Your task to perform on an android device: toggle data saver in the chrome app Image 0: 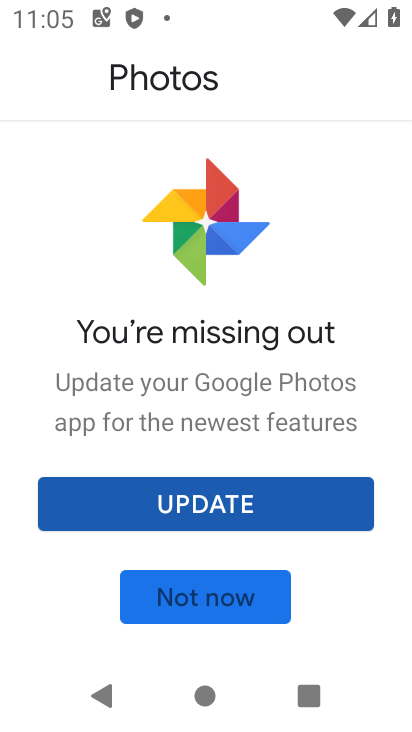
Step 0: press home button
Your task to perform on an android device: toggle data saver in the chrome app Image 1: 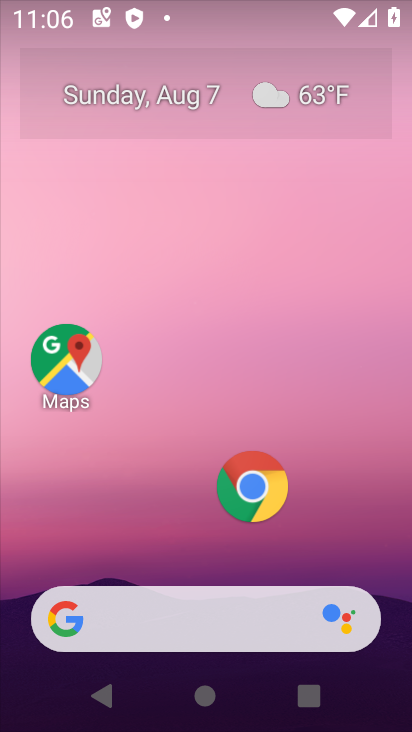
Step 1: click (267, 500)
Your task to perform on an android device: toggle data saver in the chrome app Image 2: 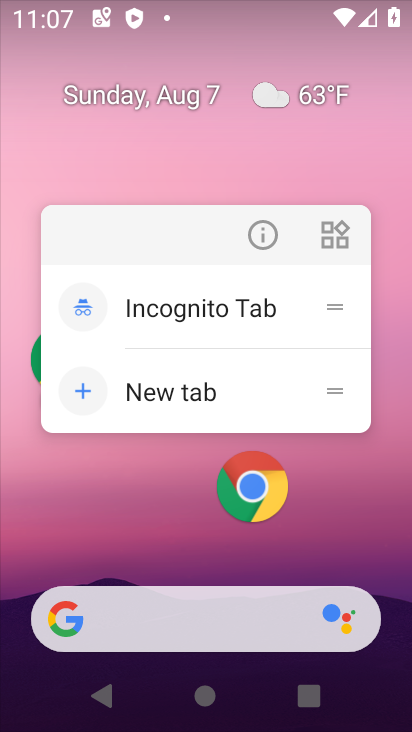
Step 2: click (267, 500)
Your task to perform on an android device: toggle data saver in the chrome app Image 3: 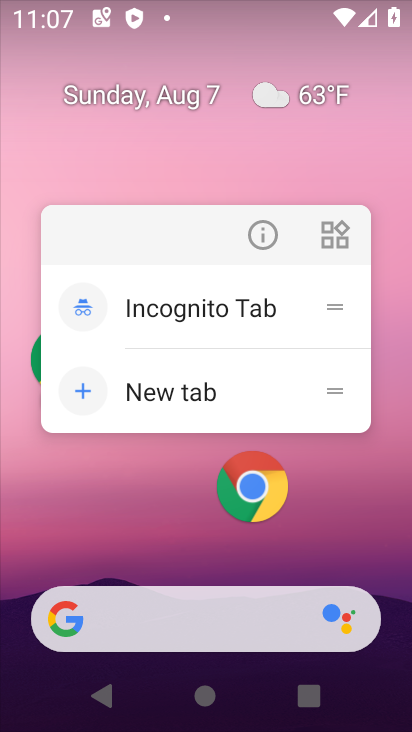
Step 3: click (267, 500)
Your task to perform on an android device: toggle data saver in the chrome app Image 4: 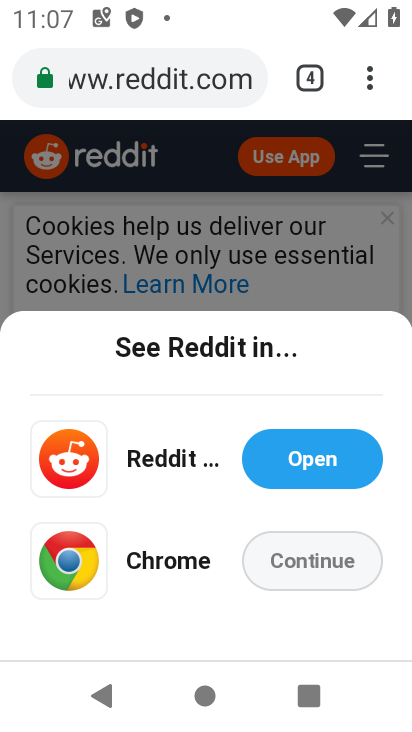
Step 4: click (373, 87)
Your task to perform on an android device: toggle data saver in the chrome app Image 5: 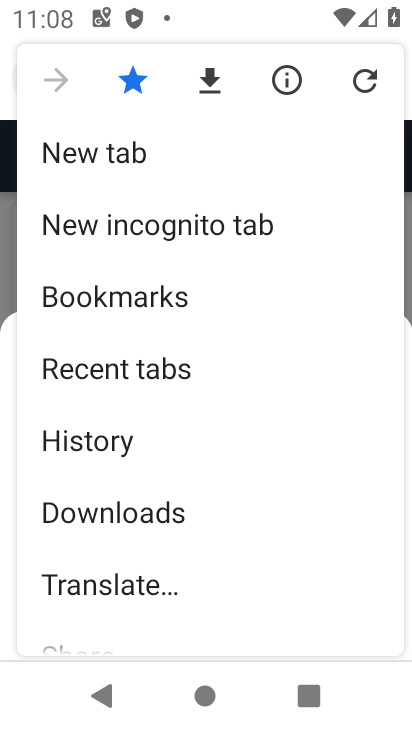
Step 5: drag from (267, 588) to (233, 95)
Your task to perform on an android device: toggle data saver in the chrome app Image 6: 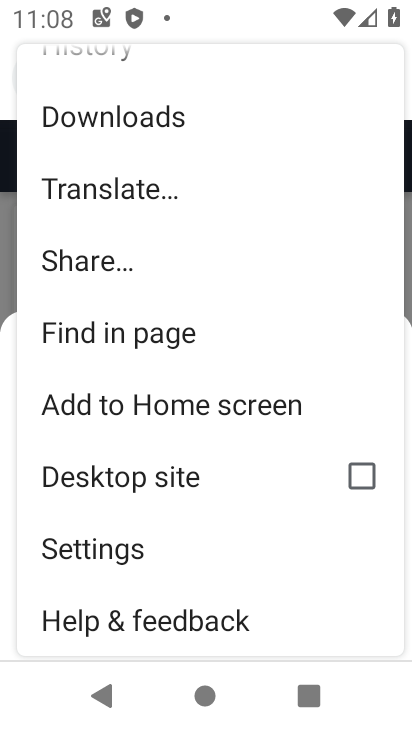
Step 6: drag from (262, 658) to (324, 134)
Your task to perform on an android device: toggle data saver in the chrome app Image 7: 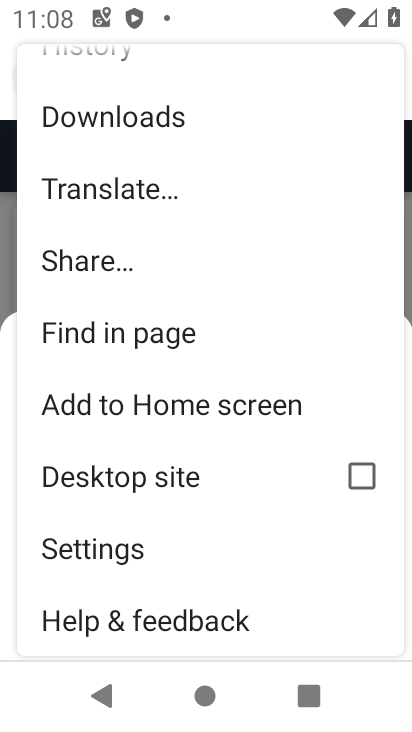
Step 7: drag from (251, 579) to (307, 87)
Your task to perform on an android device: toggle data saver in the chrome app Image 8: 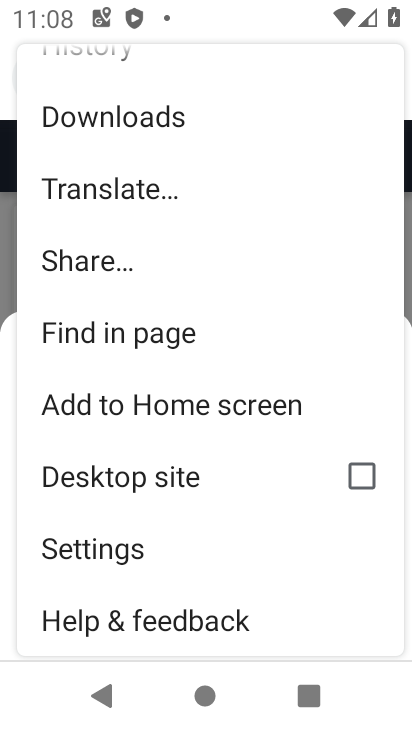
Step 8: drag from (234, 574) to (391, 201)
Your task to perform on an android device: toggle data saver in the chrome app Image 9: 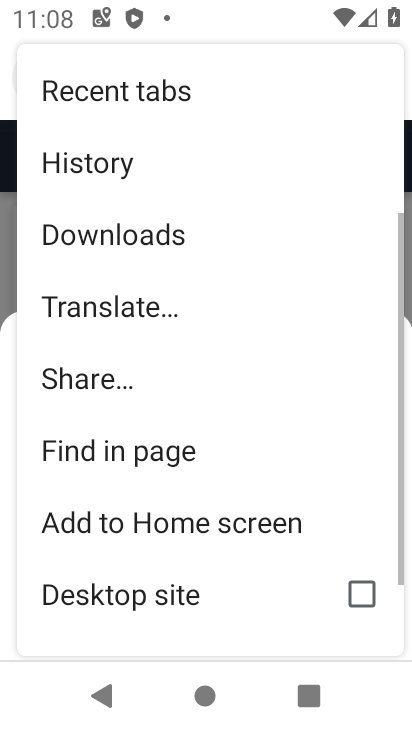
Step 9: drag from (82, 588) to (362, 2)
Your task to perform on an android device: toggle data saver in the chrome app Image 10: 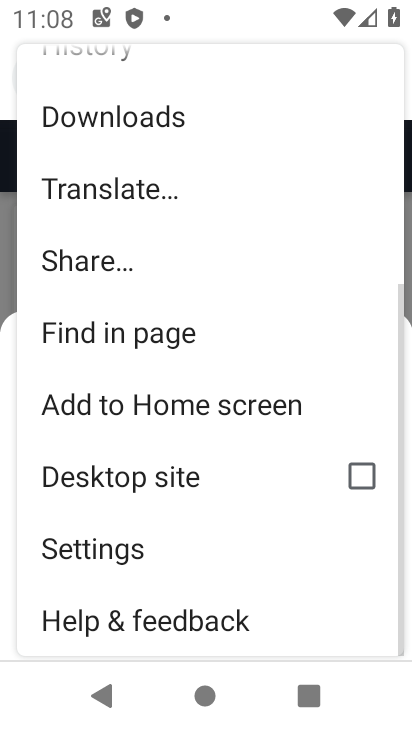
Step 10: drag from (48, 598) to (214, 9)
Your task to perform on an android device: toggle data saver in the chrome app Image 11: 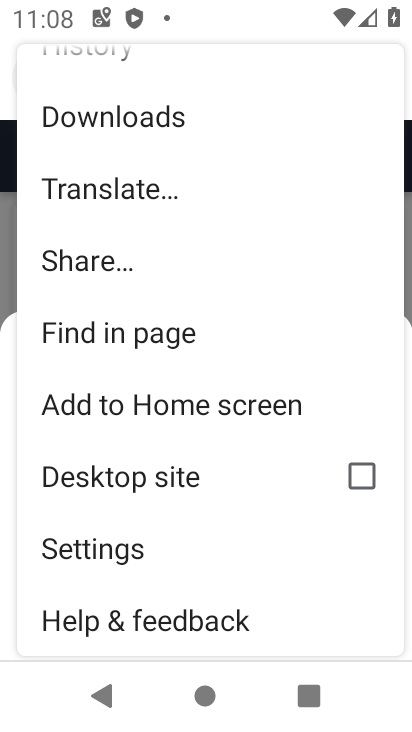
Step 11: click (159, 550)
Your task to perform on an android device: toggle data saver in the chrome app Image 12: 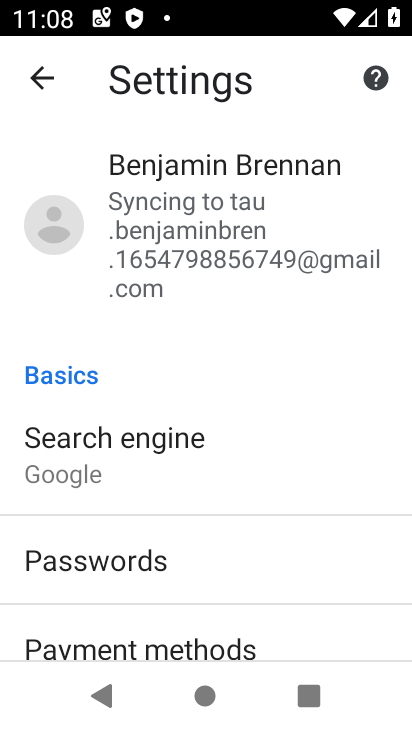
Step 12: drag from (304, 614) to (403, 615)
Your task to perform on an android device: toggle data saver in the chrome app Image 13: 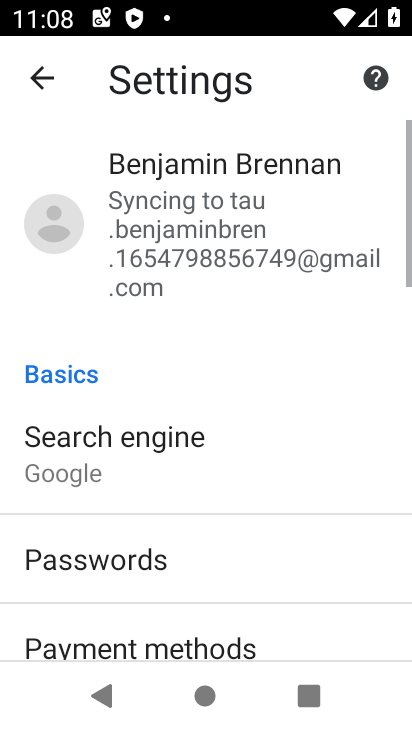
Step 13: drag from (282, 602) to (336, 43)
Your task to perform on an android device: toggle data saver in the chrome app Image 14: 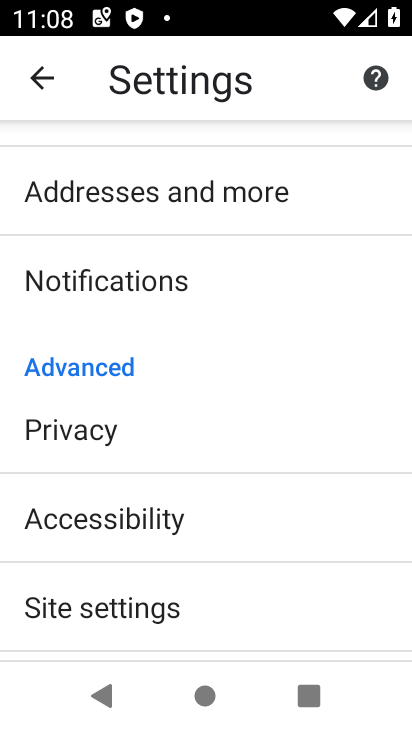
Step 14: drag from (288, 545) to (300, 35)
Your task to perform on an android device: toggle data saver in the chrome app Image 15: 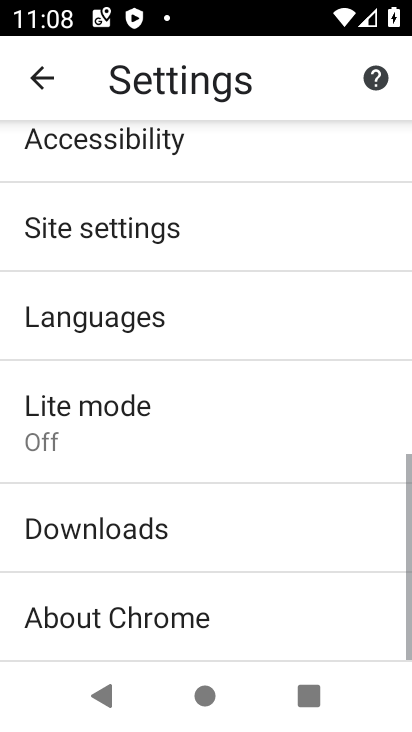
Step 15: click (87, 414)
Your task to perform on an android device: toggle data saver in the chrome app Image 16: 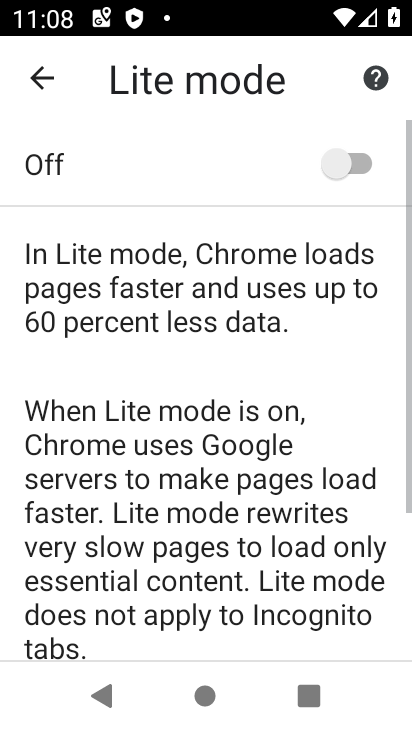
Step 16: click (349, 164)
Your task to perform on an android device: toggle data saver in the chrome app Image 17: 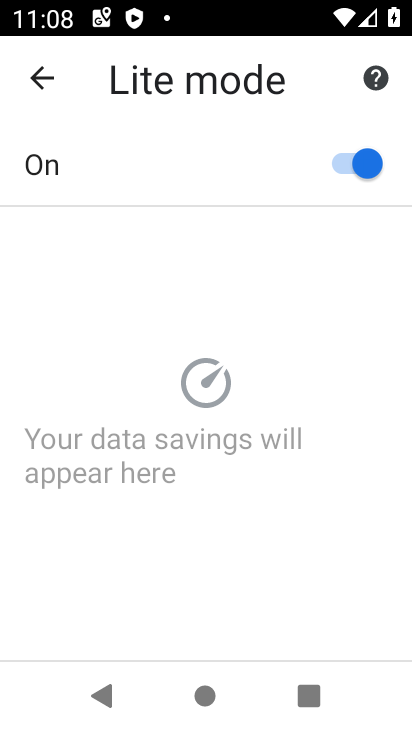
Step 17: task complete